Your task to perform on an android device: open app "AliExpress" Image 0: 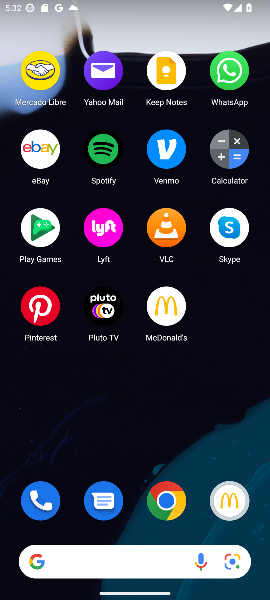
Step 0: drag from (140, 413) to (117, 118)
Your task to perform on an android device: open app "AliExpress" Image 1: 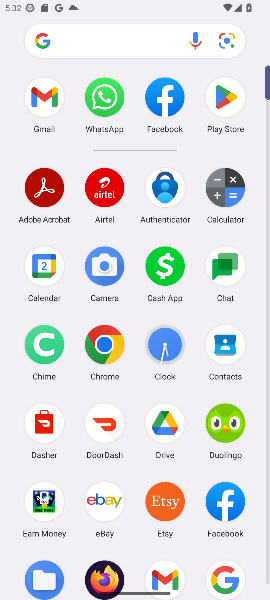
Step 1: click (219, 105)
Your task to perform on an android device: open app "AliExpress" Image 2: 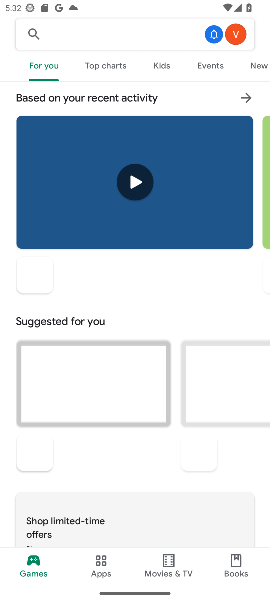
Step 2: click (45, 38)
Your task to perform on an android device: open app "AliExpress" Image 3: 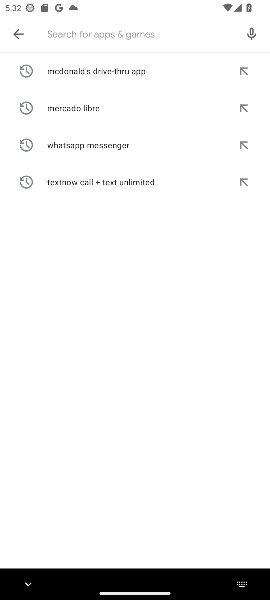
Step 3: type "AliExpress"
Your task to perform on an android device: open app "AliExpress" Image 4: 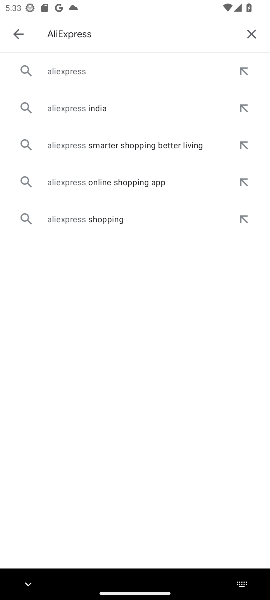
Step 4: click (52, 69)
Your task to perform on an android device: open app "AliExpress" Image 5: 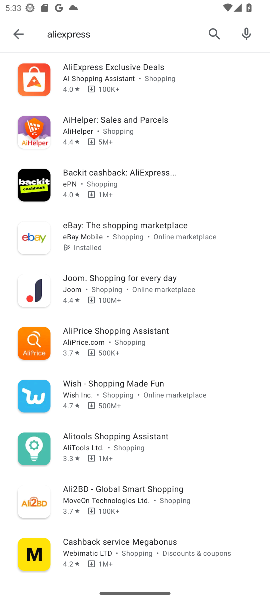
Step 5: click (73, 81)
Your task to perform on an android device: open app "AliExpress" Image 6: 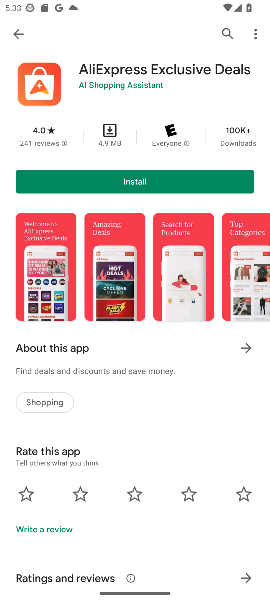
Step 6: task complete